Your task to perform on an android device: uninstall "Messenger Lite" Image 0: 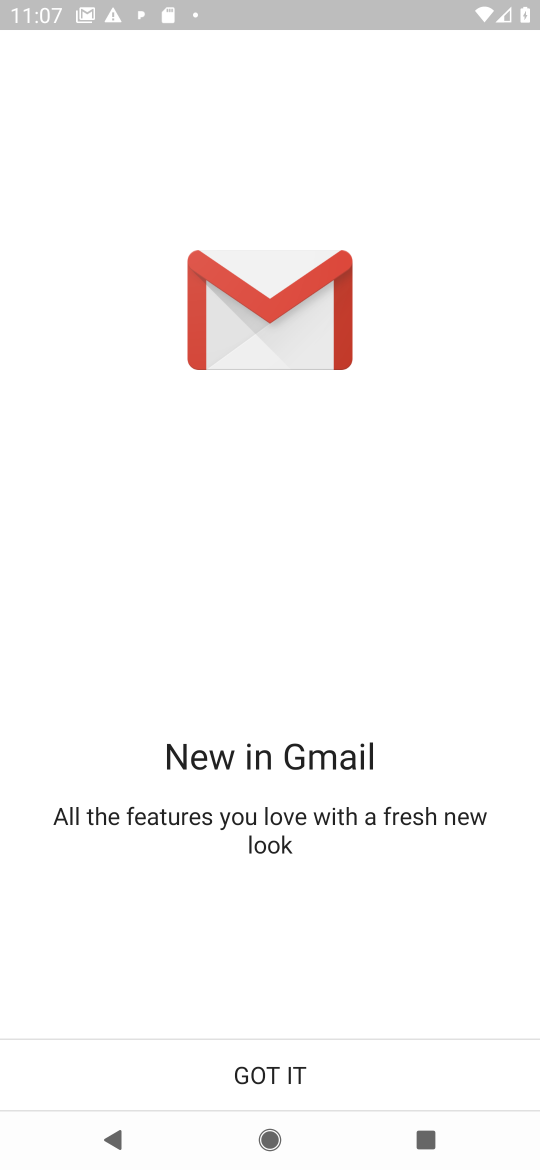
Step 0: press back button
Your task to perform on an android device: uninstall "Messenger Lite" Image 1: 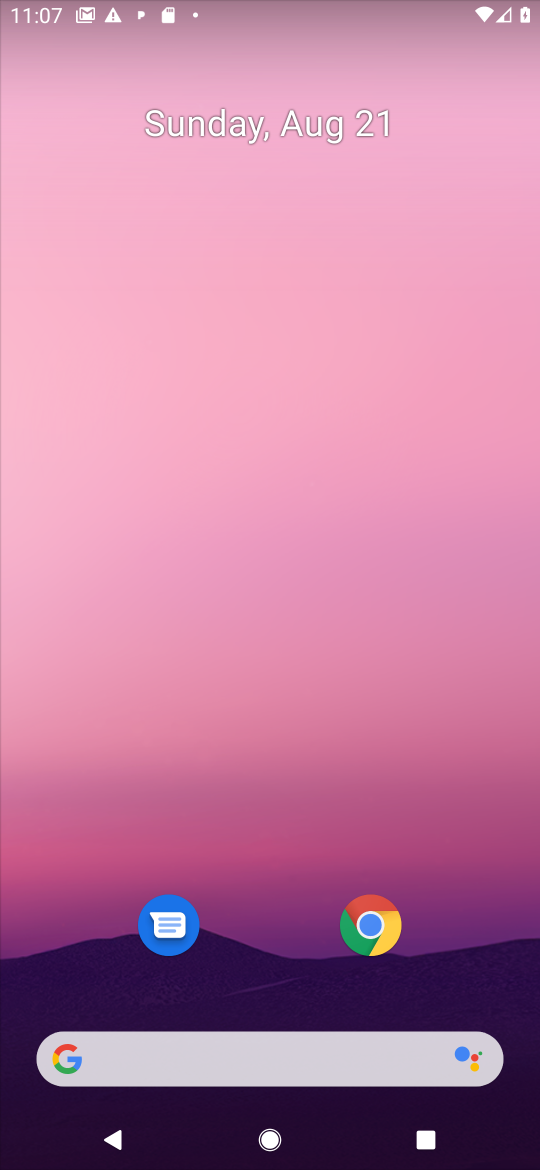
Step 1: drag from (248, 928) to (351, 213)
Your task to perform on an android device: uninstall "Messenger Lite" Image 2: 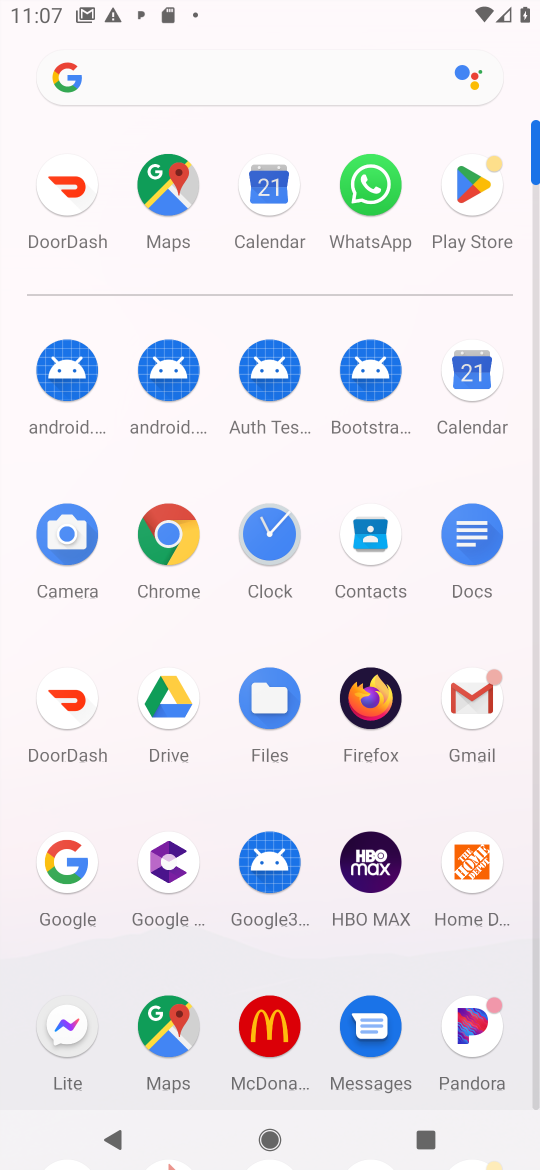
Step 2: click (472, 168)
Your task to perform on an android device: uninstall "Messenger Lite" Image 3: 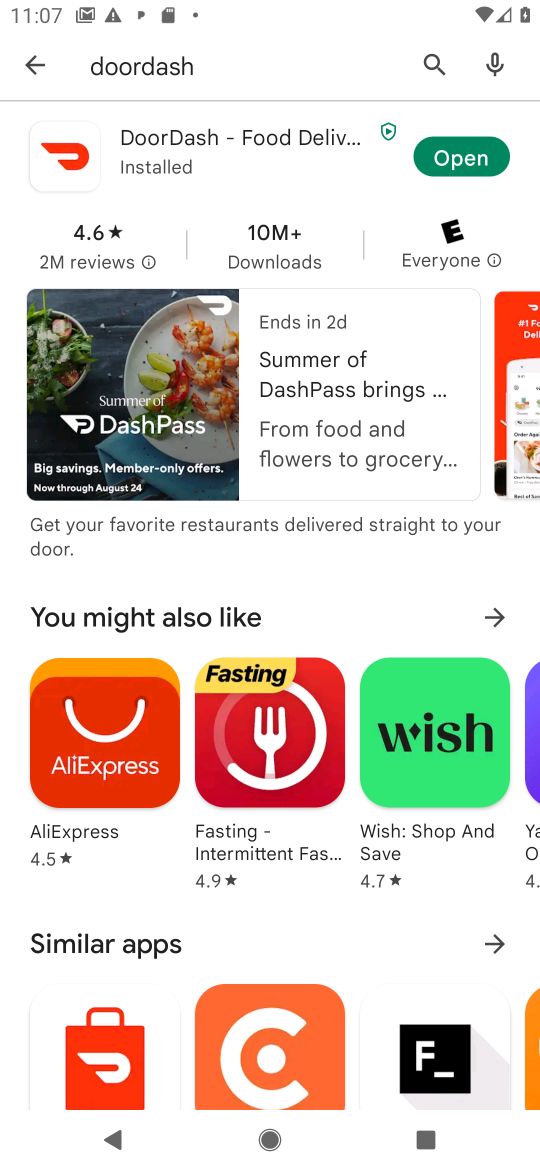
Step 3: click (428, 59)
Your task to perform on an android device: uninstall "Messenger Lite" Image 4: 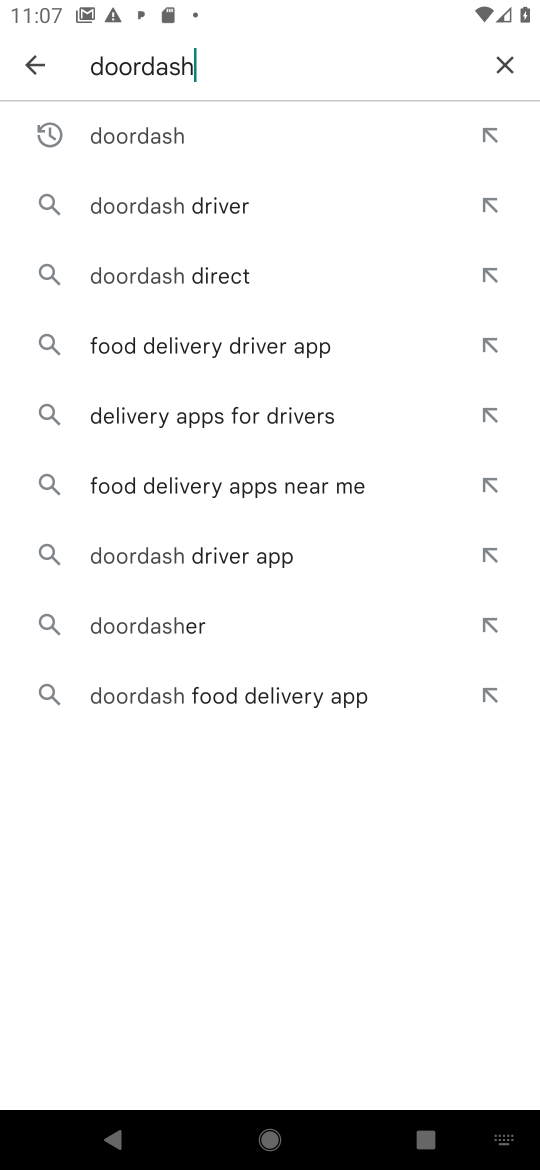
Step 4: click (508, 53)
Your task to perform on an android device: uninstall "Messenger Lite" Image 5: 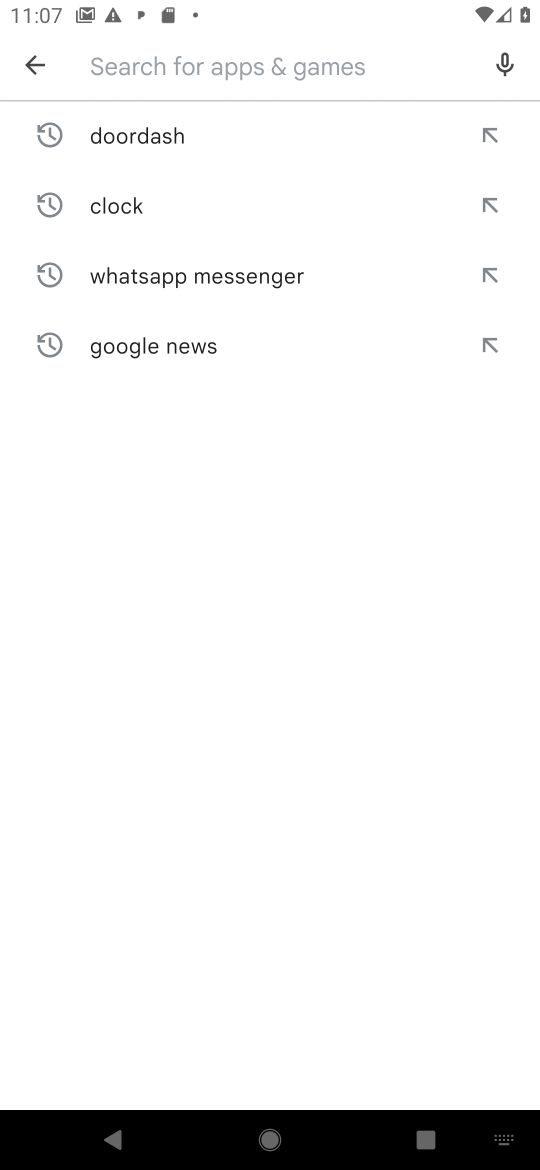
Step 5: click (216, 69)
Your task to perform on an android device: uninstall "Messenger Lite" Image 6: 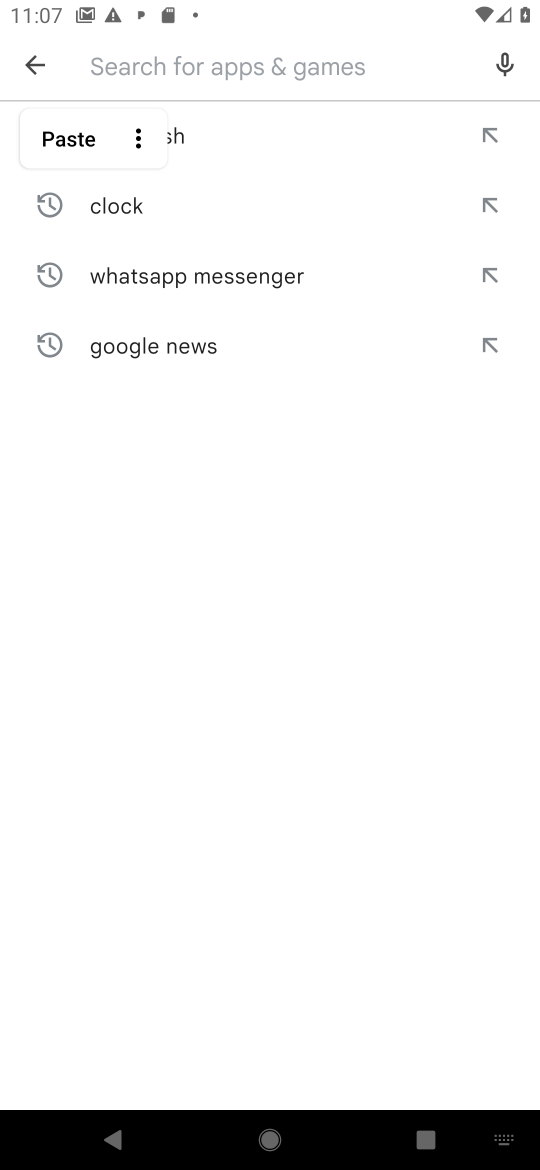
Step 6: type "messenger lite"
Your task to perform on an android device: uninstall "Messenger Lite" Image 7: 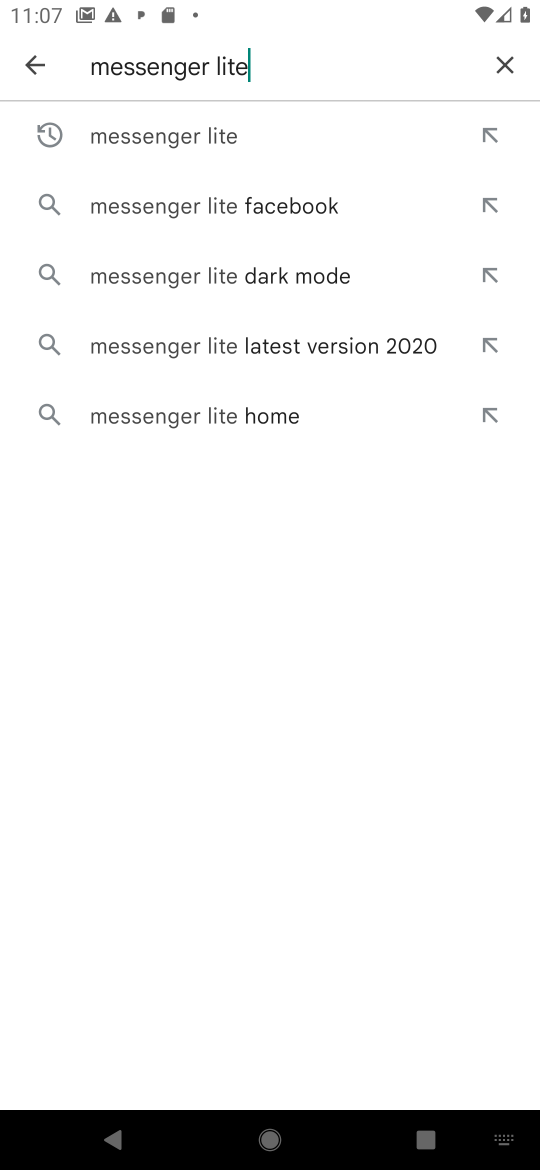
Step 7: click (173, 127)
Your task to perform on an android device: uninstall "Messenger Lite" Image 8: 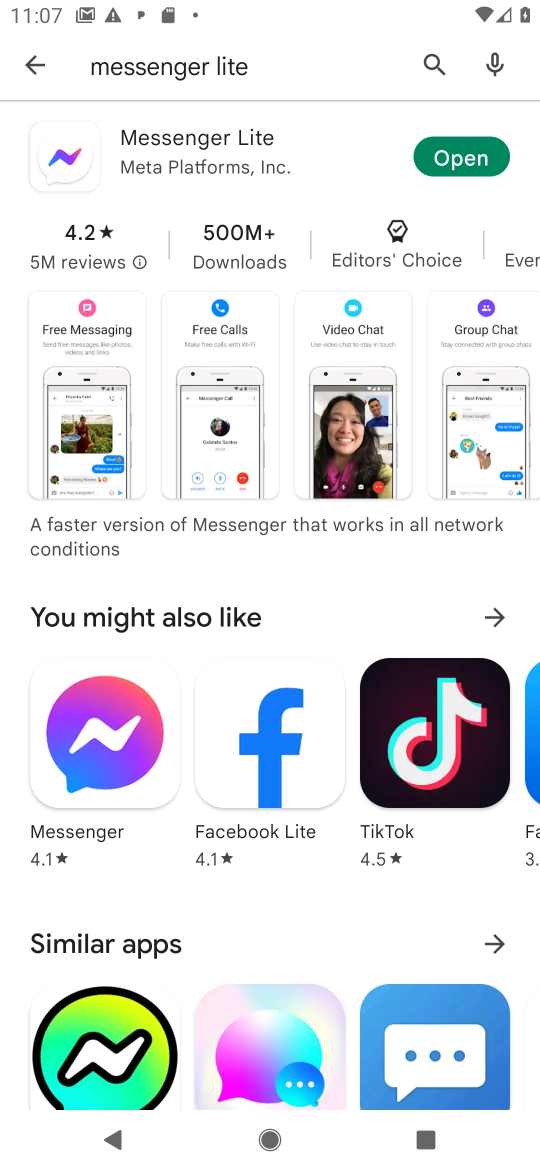
Step 8: click (203, 138)
Your task to perform on an android device: uninstall "Messenger Lite" Image 9: 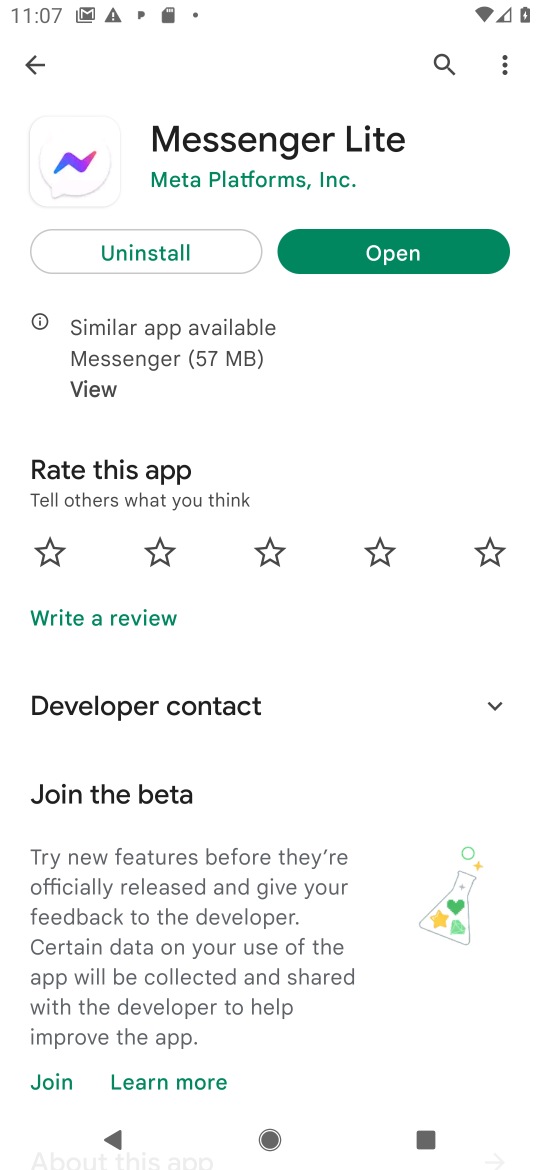
Step 9: click (148, 252)
Your task to perform on an android device: uninstall "Messenger Lite" Image 10: 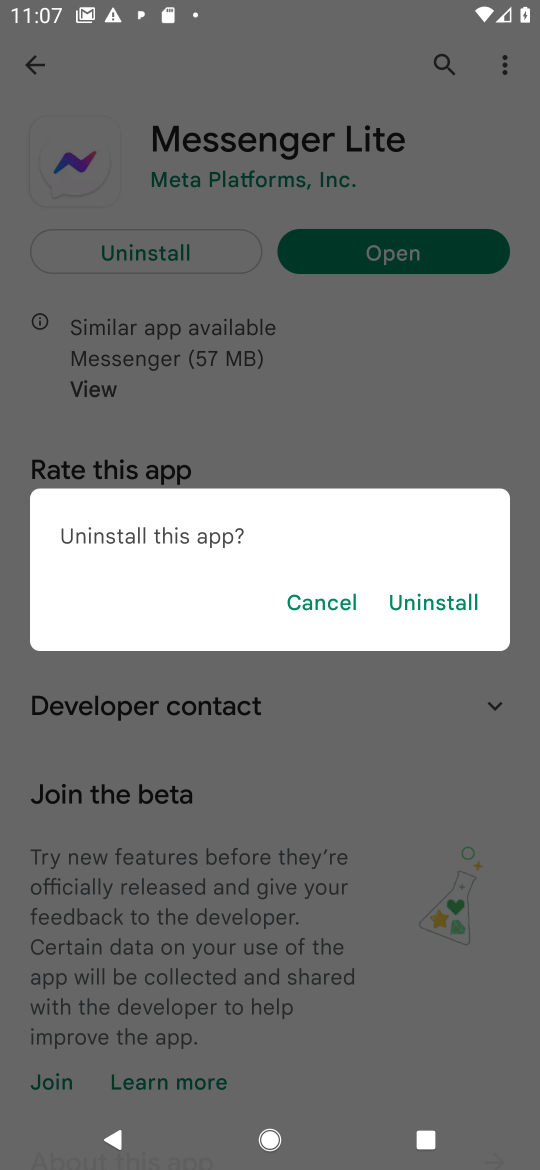
Step 10: click (443, 621)
Your task to perform on an android device: uninstall "Messenger Lite" Image 11: 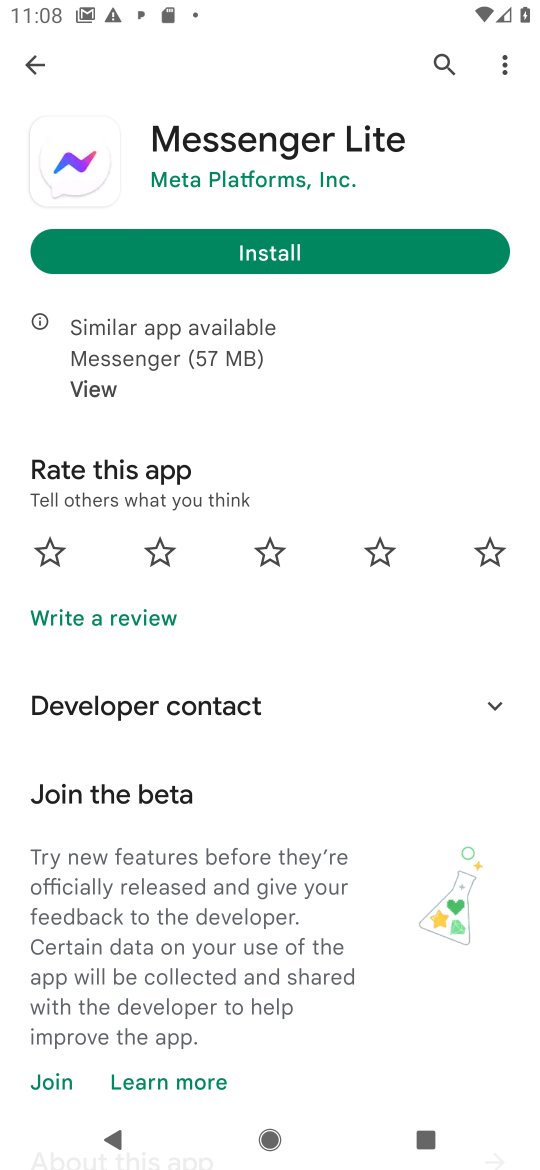
Step 11: task complete